Your task to perform on an android device: Open maps Image 0: 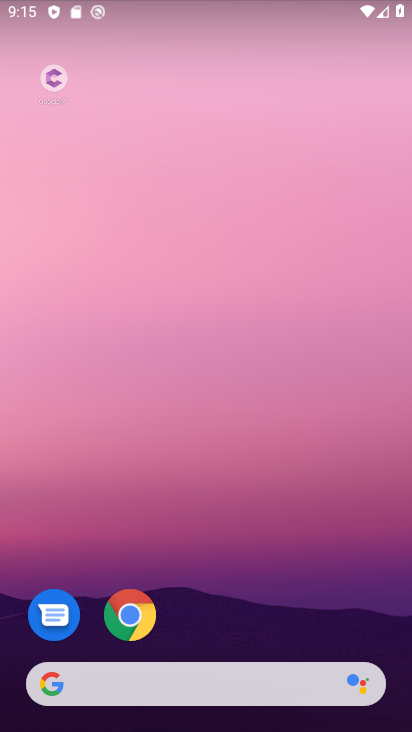
Step 0: click (59, 397)
Your task to perform on an android device: Open maps Image 1: 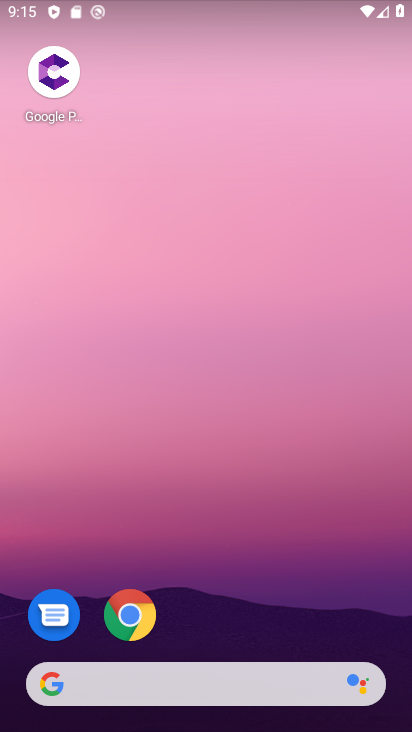
Step 1: drag from (229, 449) to (225, 3)
Your task to perform on an android device: Open maps Image 2: 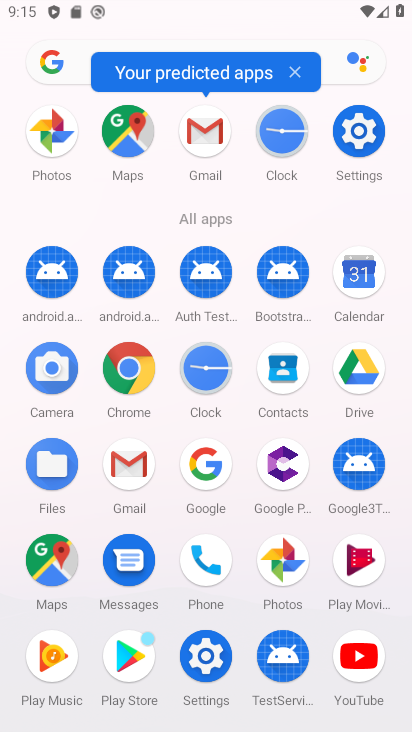
Step 2: click (53, 558)
Your task to perform on an android device: Open maps Image 3: 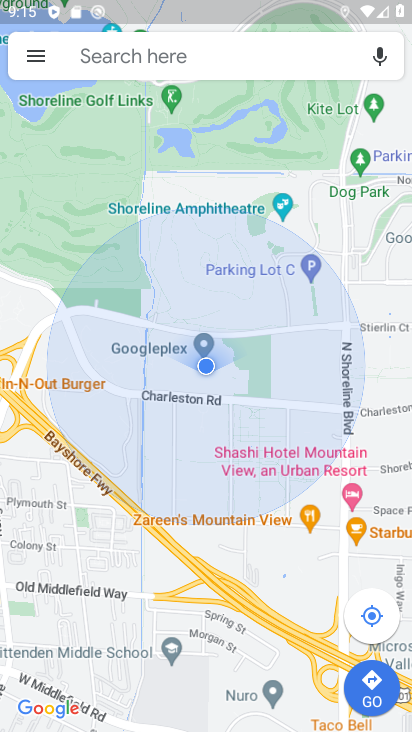
Step 3: task complete